Your task to perform on an android device: Do I have any events today? Image 0: 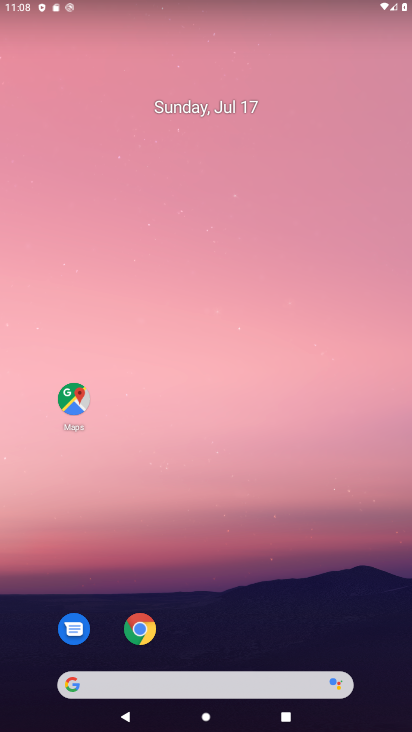
Step 0: press home button
Your task to perform on an android device: Do I have any events today? Image 1: 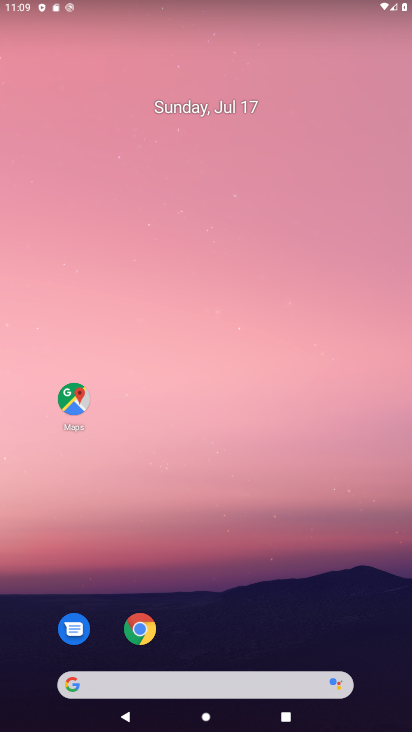
Step 1: drag from (247, 598) to (402, 70)
Your task to perform on an android device: Do I have any events today? Image 2: 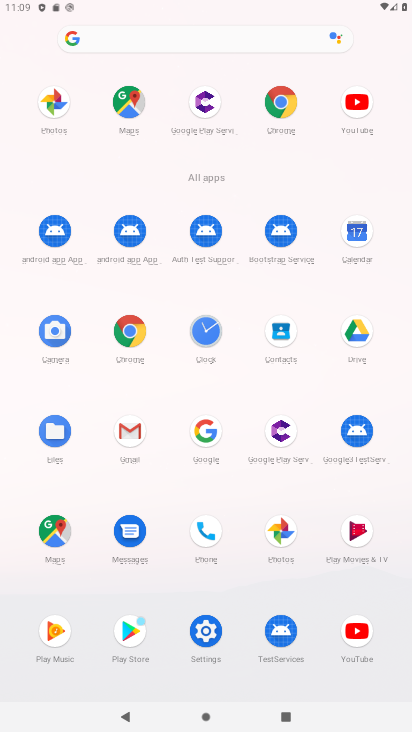
Step 2: click (356, 231)
Your task to perform on an android device: Do I have any events today? Image 3: 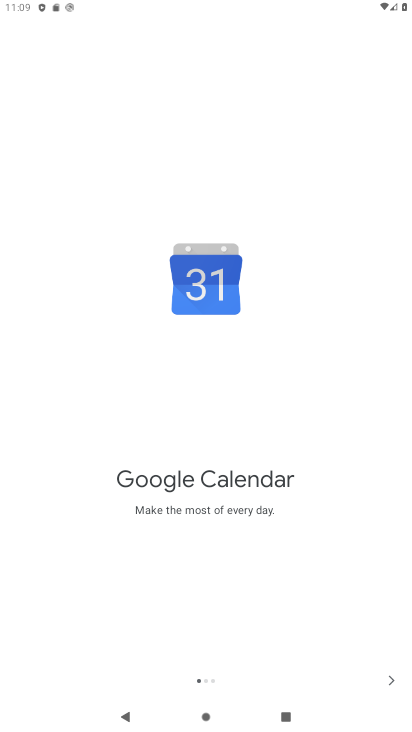
Step 3: click (387, 677)
Your task to perform on an android device: Do I have any events today? Image 4: 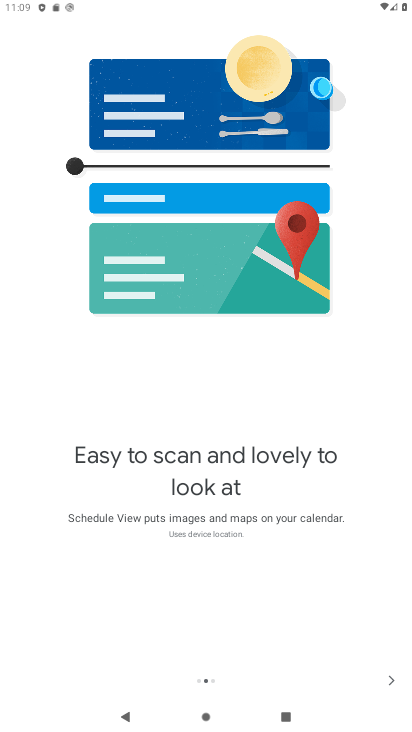
Step 4: click (373, 678)
Your task to perform on an android device: Do I have any events today? Image 5: 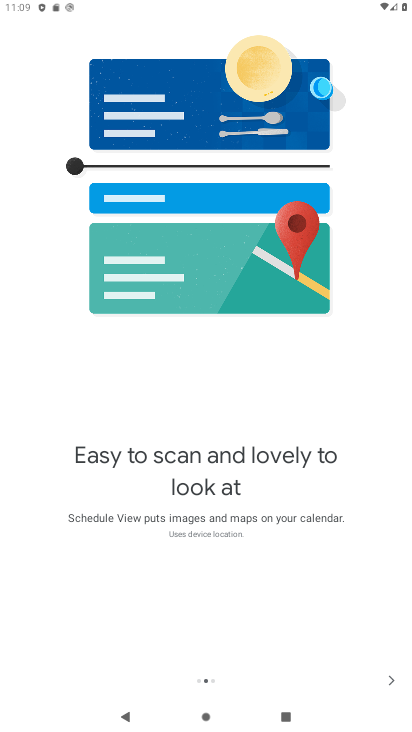
Step 5: click (399, 675)
Your task to perform on an android device: Do I have any events today? Image 6: 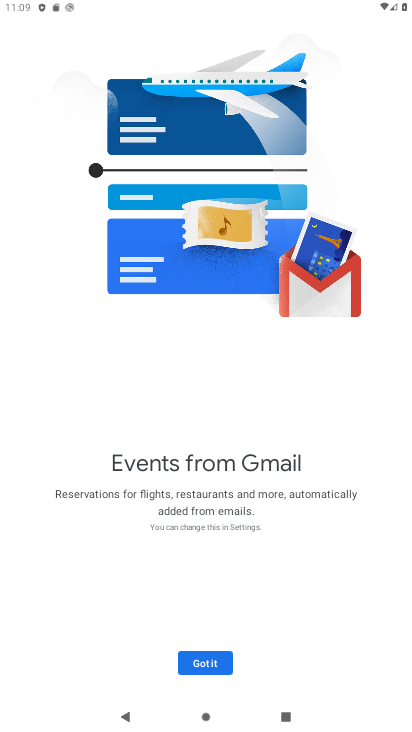
Step 6: click (196, 673)
Your task to perform on an android device: Do I have any events today? Image 7: 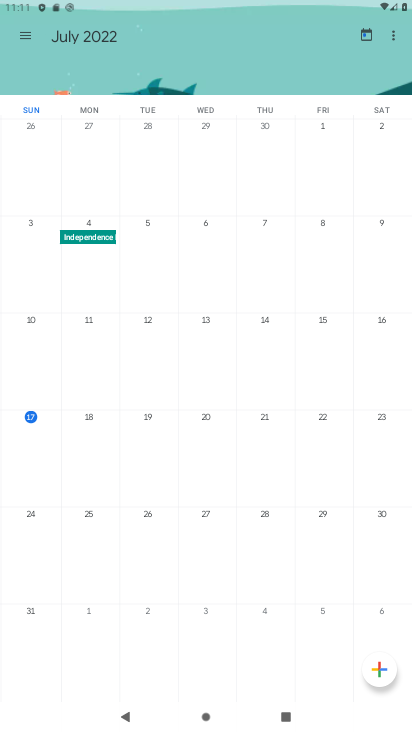
Step 7: click (34, 437)
Your task to perform on an android device: Do I have any events today? Image 8: 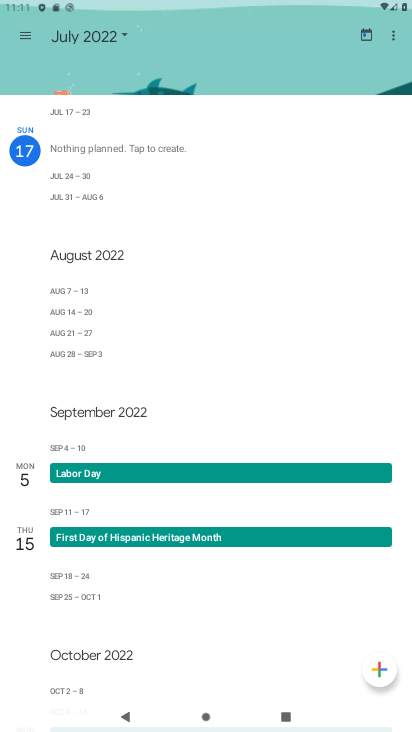
Step 8: task complete